Your task to perform on an android device: read, delete, or share a saved page in the chrome app Image 0: 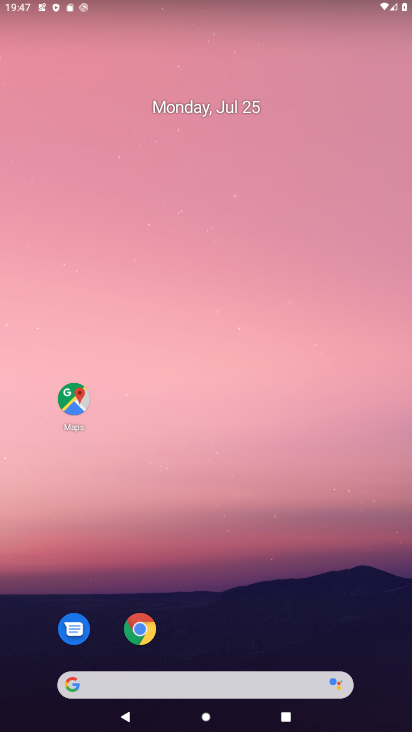
Step 0: click (140, 618)
Your task to perform on an android device: read, delete, or share a saved page in the chrome app Image 1: 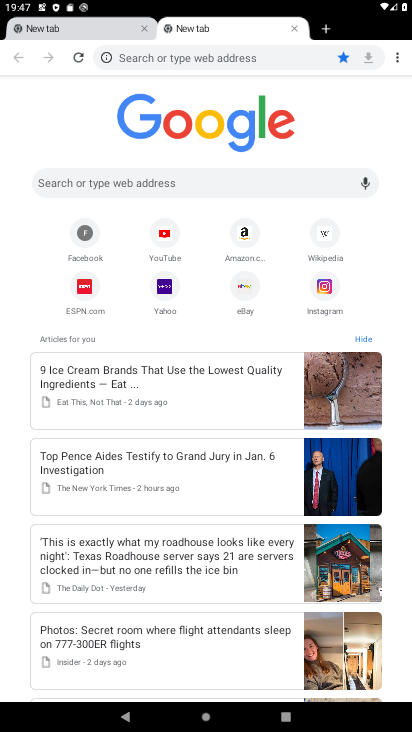
Step 1: click (397, 58)
Your task to perform on an android device: read, delete, or share a saved page in the chrome app Image 2: 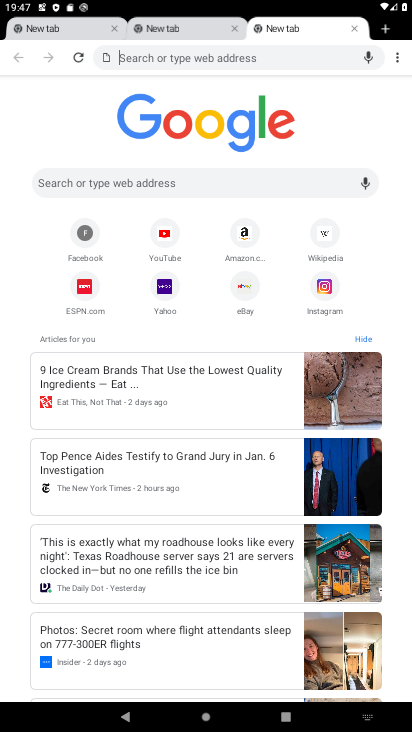
Step 2: click (392, 57)
Your task to perform on an android device: read, delete, or share a saved page in the chrome app Image 3: 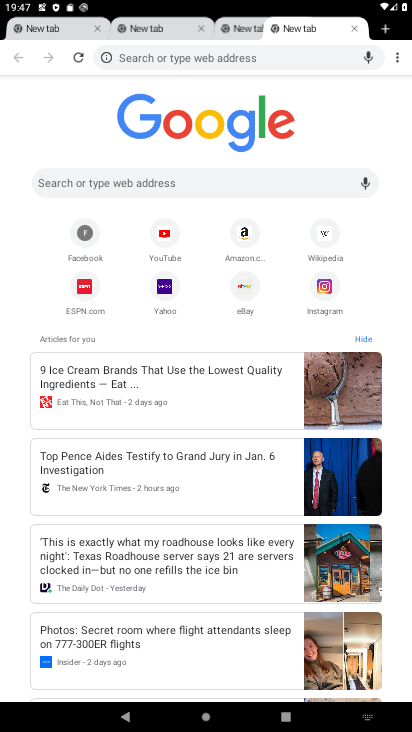
Step 3: task complete